Your task to perform on an android device: toggle data saver in the chrome app Image 0: 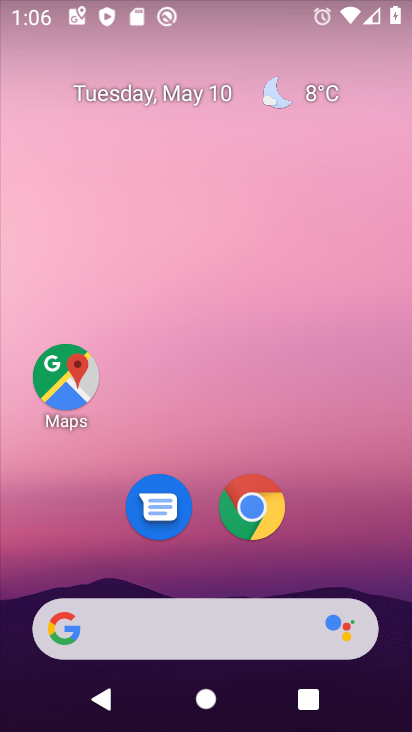
Step 0: click (247, 510)
Your task to perform on an android device: toggle data saver in the chrome app Image 1: 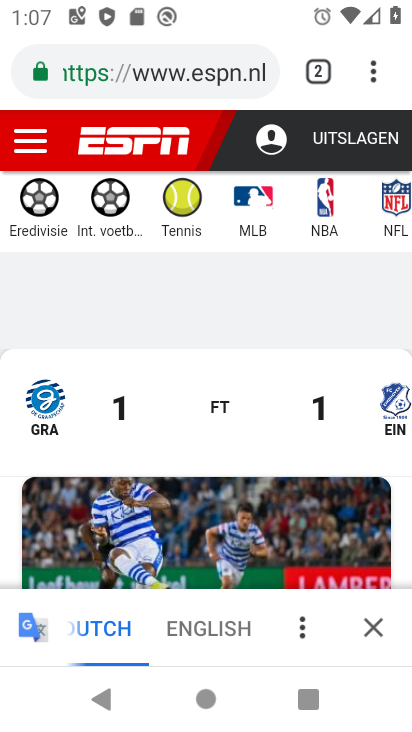
Step 1: click (375, 80)
Your task to perform on an android device: toggle data saver in the chrome app Image 2: 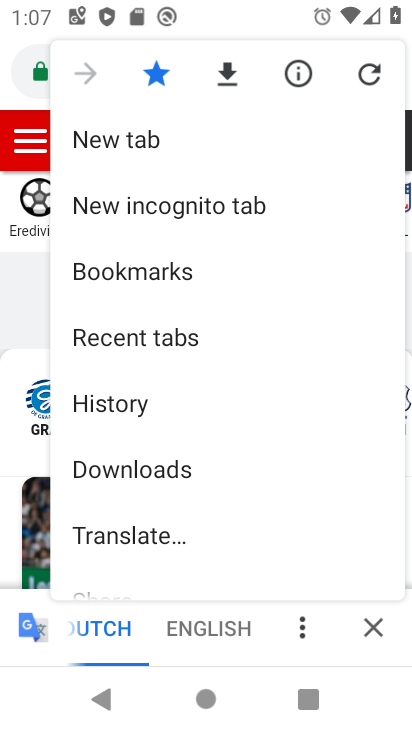
Step 2: drag from (199, 572) to (198, 326)
Your task to perform on an android device: toggle data saver in the chrome app Image 3: 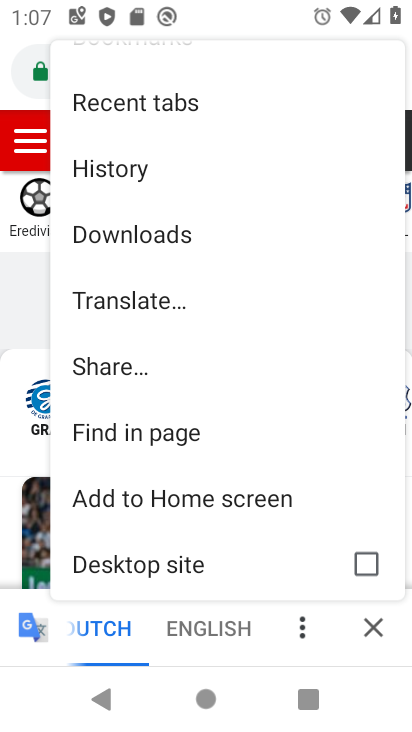
Step 3: drag from (165, 550) to (183, 268)
Your task to perform on an android device: toggle data saver in the chrome app Image 4: 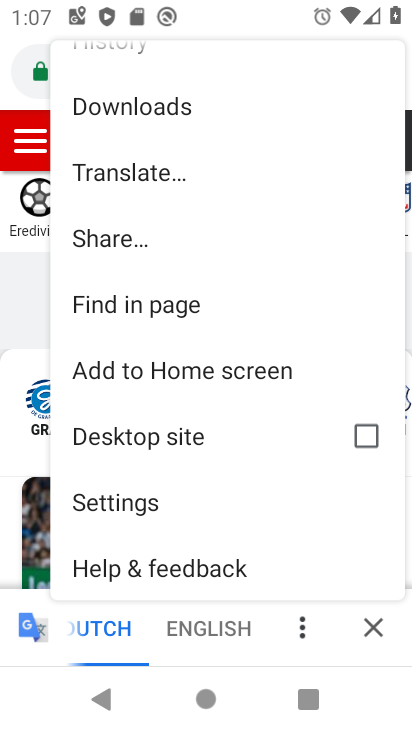
Step 4: click (117, 497)
Your task to perform on an android device: toggle data saver in the chrome app Image 5: 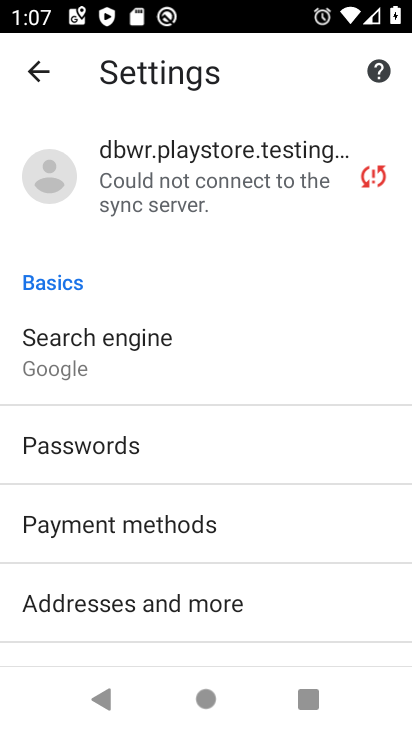
Step 5: drag from (162, 632) to (166, 251)
Your task to perform on an android device: toggle data saver in the chrome app Image 6: 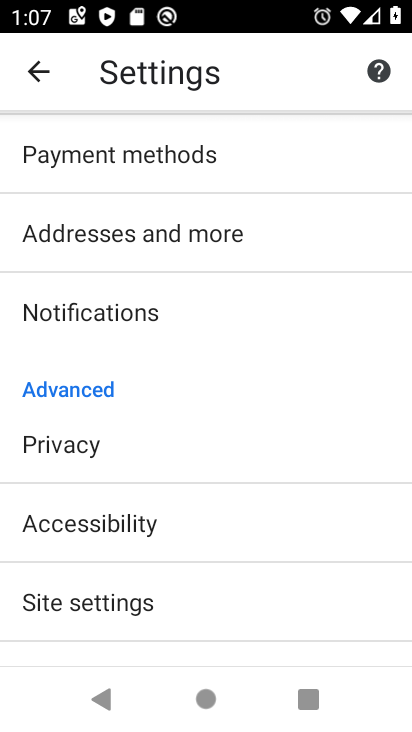
Step 6: drag from (114, 599) to (114, 246)
Your task to perform on an android device: toggle data saver in the chrome app Image 7: 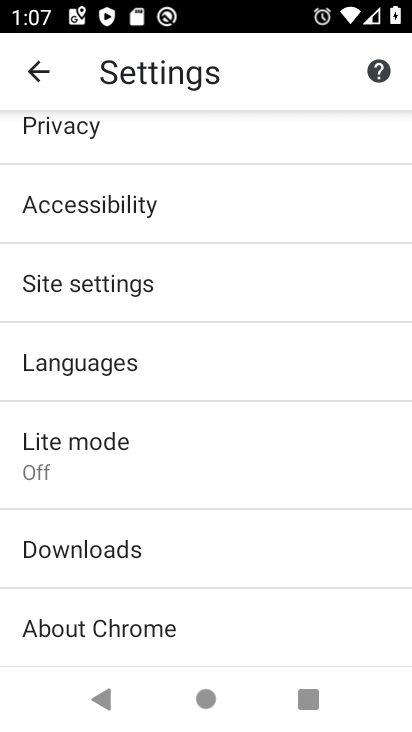
Step 7: click (87, 446)
Your task to perform on an android device: toggle data saver in the chrome app Image 8: 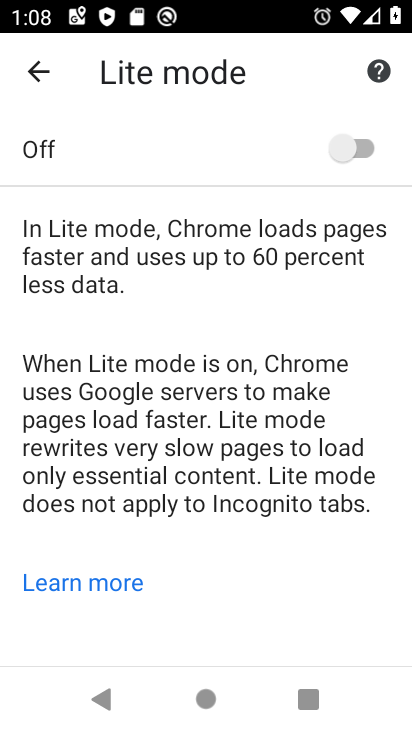
Step 8: task complete